Your task to perform on an android device: Show me productivity apps on the Play Store Image 0: 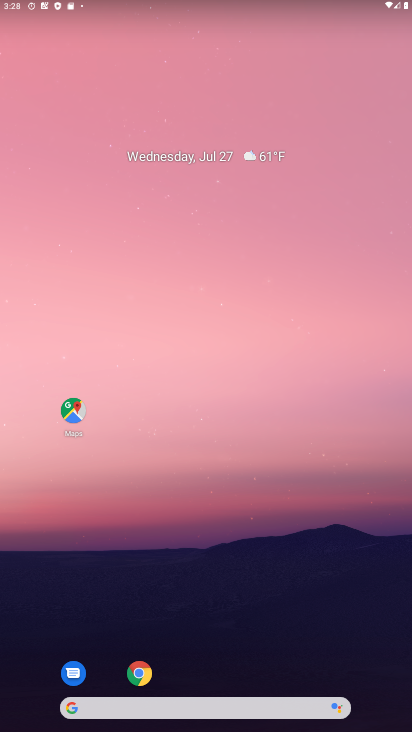
Step 0: drag from (17, 705) to (327, 14)
Your task to perform on an android device: Show me productivity apps on the Play Store Image 1: 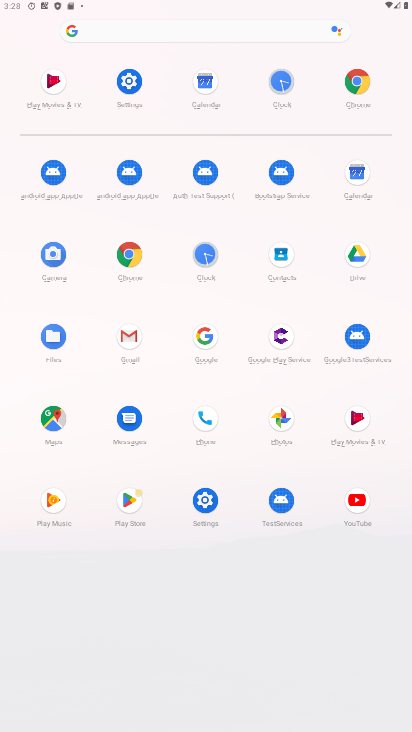
Step 1: drag from (153, 510) to (111, 507)
Your task to perform on an android device: Show me productivity apps on the Play Store Image 2: 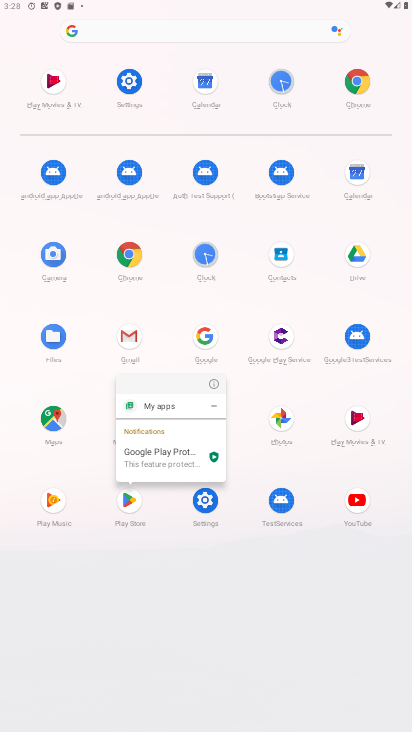
Step 2: click (125, 498)
Your task to perform on an android device: Show me productivity apps on the Play Store Image 3: 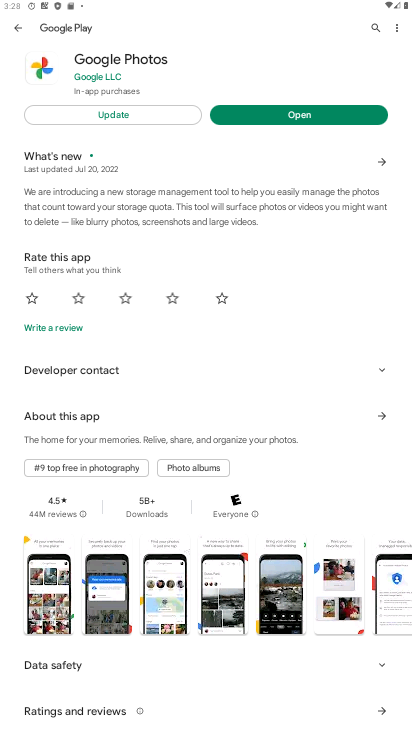
Step 3: click (12, 36)
Your task to perform on an android device: Show me productivity apps on the Play Store Image 4: 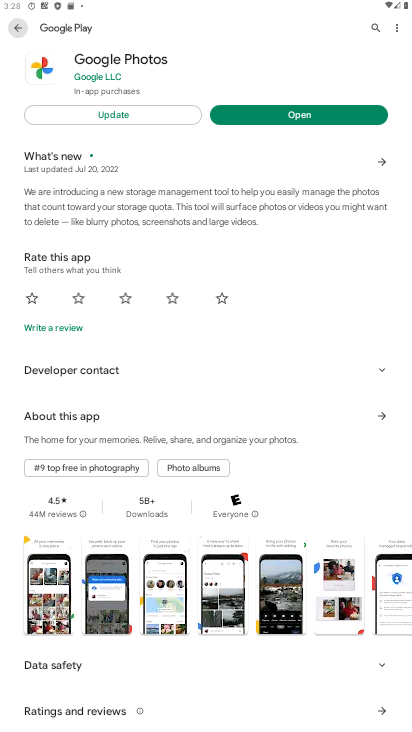
Step 4: click (10, 22)
Your task to perform on an android device: Show me productivity apps on the Play Store Image 5: 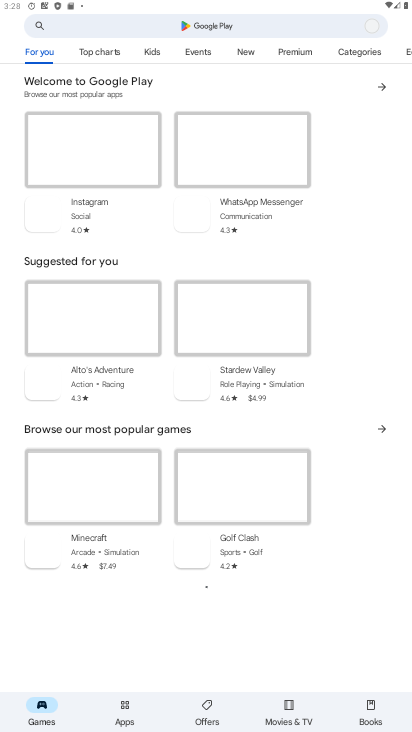
Step 5: click (82, 29)
Your task to perform on an android device: Show me productivity apps on the Play Store Image 6: 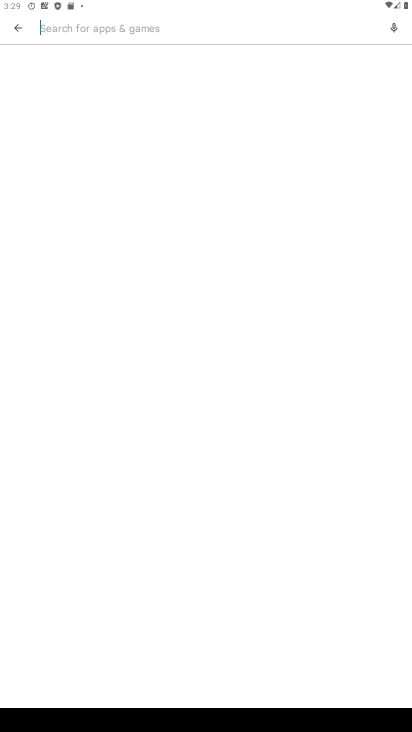
Step 6: type "productivity apps"
Your task to perform on an android device: Show me productivity apps on the Play Store Image 7: 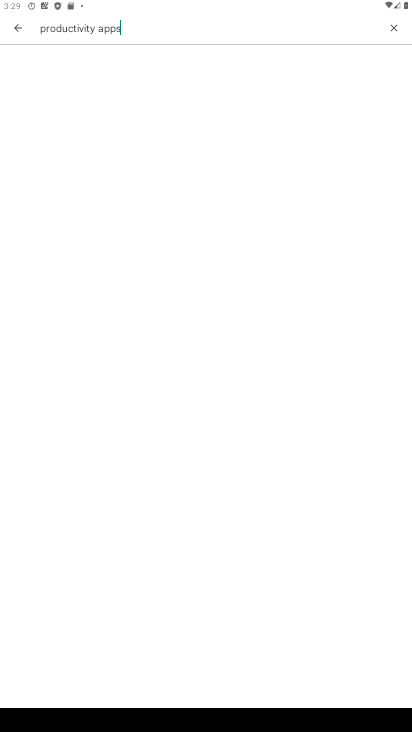
Step 7: type ""
Your task to perform on an android device: Show me productivity apps on the Play Store Image 8: 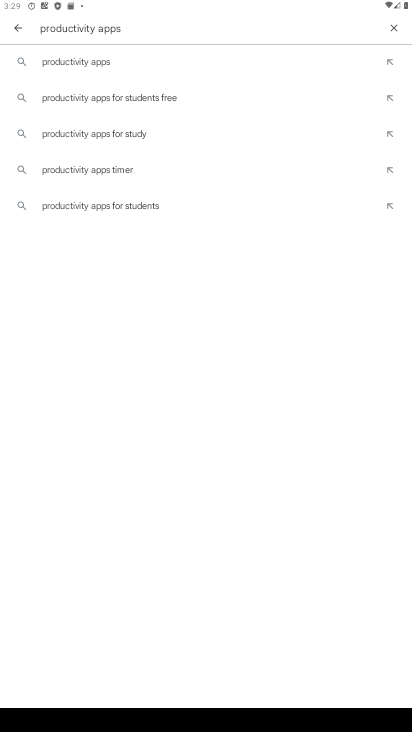
Step 8: click (59, 58)
Your task to perform on an android device: Show me productivity apps on the Play Store Image 9: 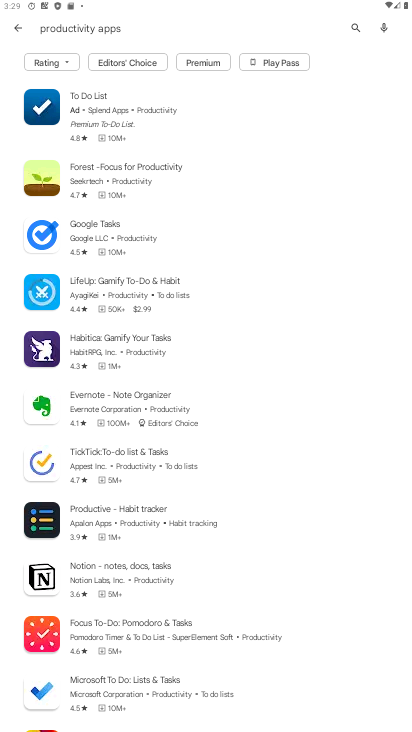
Step 9: task complete